Your task to perform on an android device: Open wifi settings Image 0: 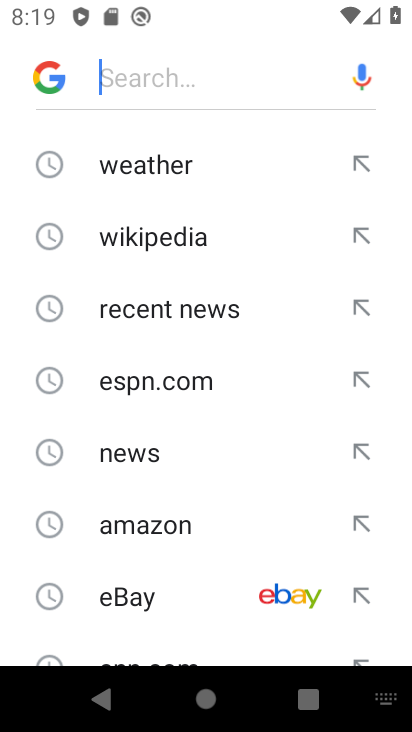
Step 0: press home button
Your task to perform on an android device: Open wifi settings Image 1: 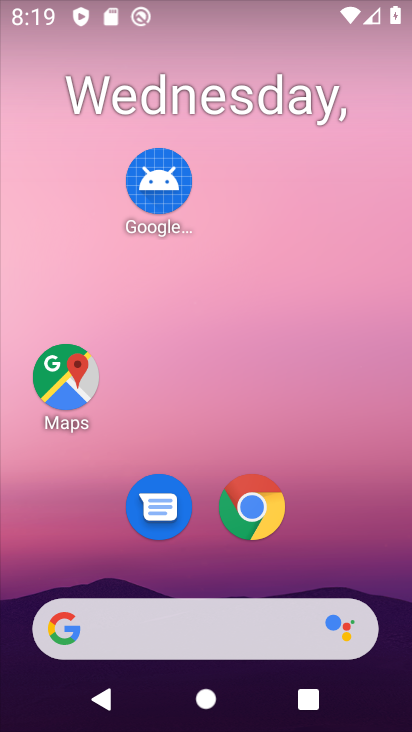
Step 1: drag from (197, 589) to (238, 48)
Your task to perform on an android device: Open wifi settings Image 2: 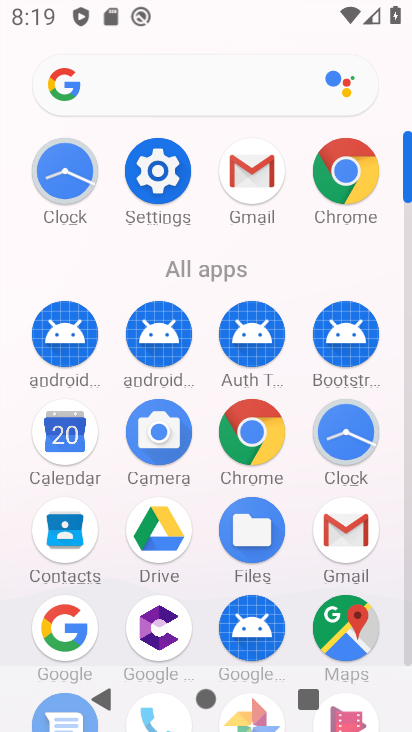
Step 2: click (162, 167)
Your task to perform on an android device: Open wifi settings Image 3: 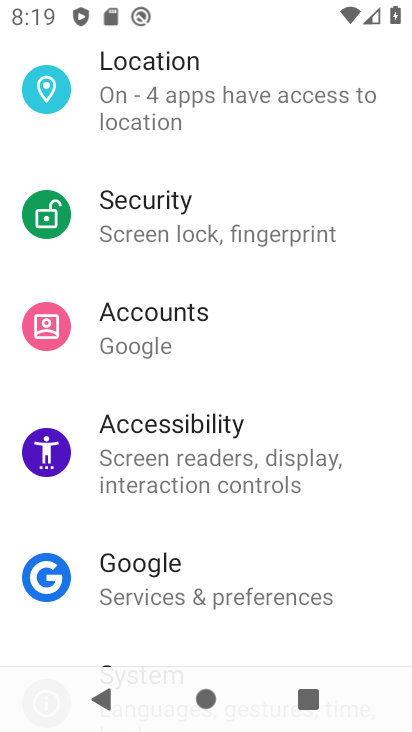
Step 3: drag from (161, 167) to (71, 470)
Your task to perform on an android device: Open wifi settings Image 4: 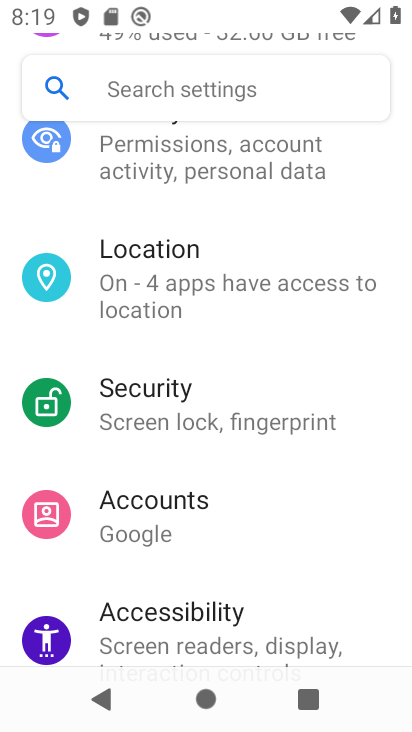
Step 4: drag from (238, 192) to (197, 648)
Your task to perform on an android device: Open wifi settings Image 5: 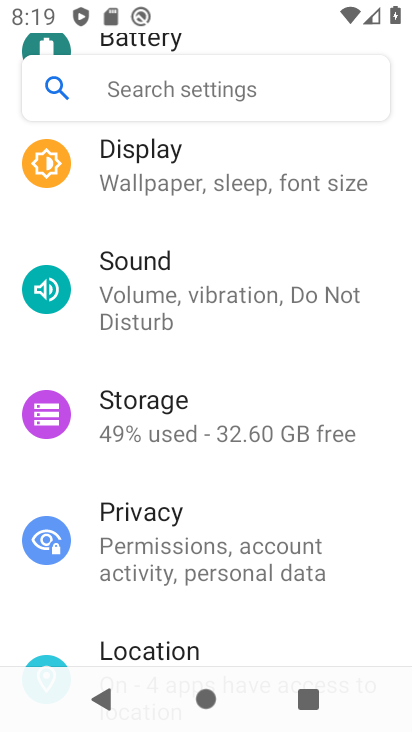
Step 5: drag from (155, 243) to (141, 638)
Your task to perform on an android device: Open wifi settings Image 6: 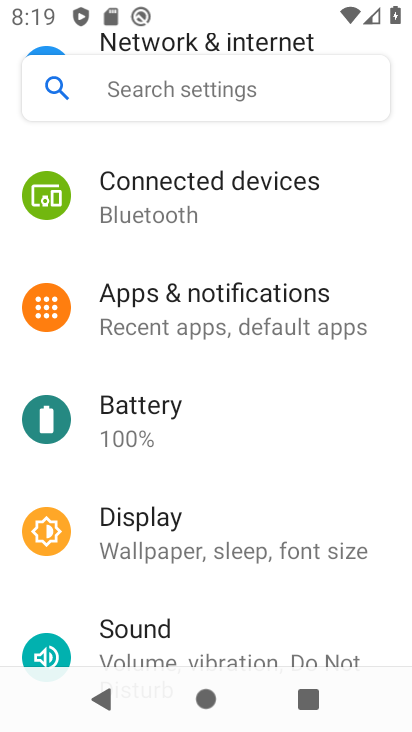
Step 6: drag from (191, 422) to (182, 628)
Your task to perform on an android device: Open wifi settings Image 7: 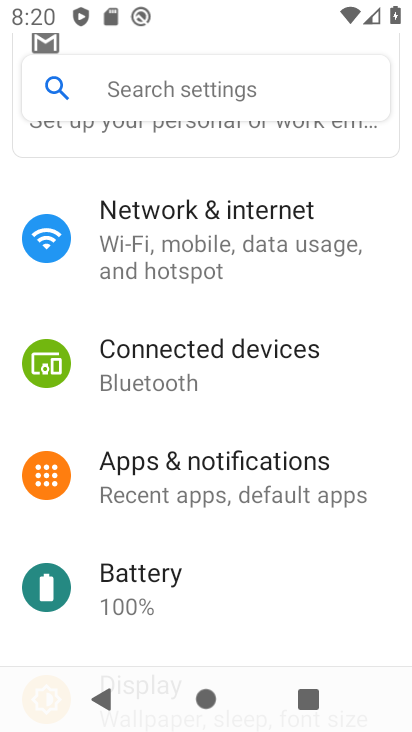
Step 7: click (197, 273)
Your task to perform on an android device: Open wifi settings Image 8: 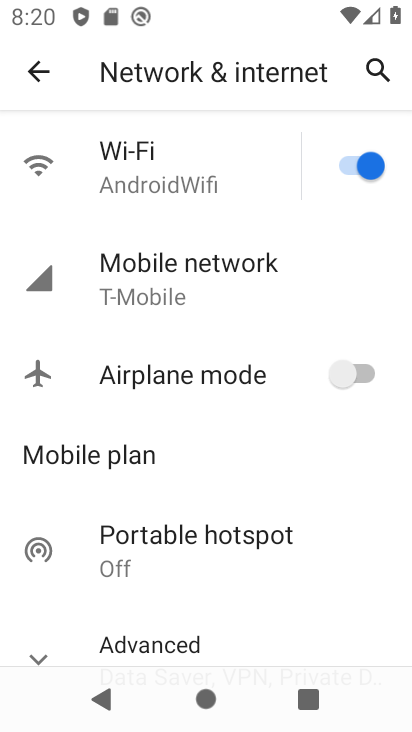
Step 8: click (197, 179)
Your task to perform on an android device: Open wifi settings Image 9: 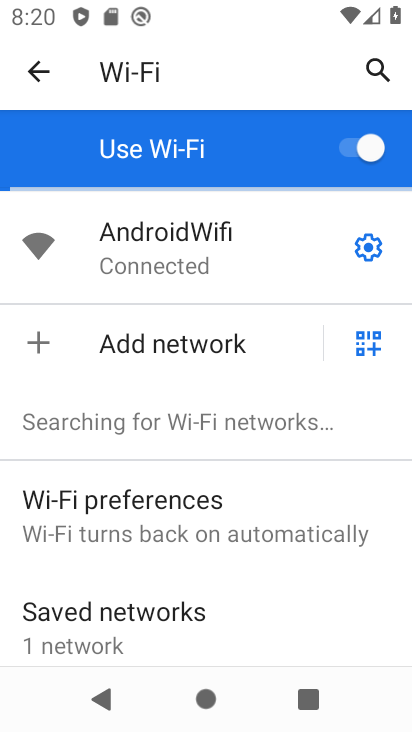
Step 9: task complete